Your task to perform on an android device: change keyboard looks Image 0: 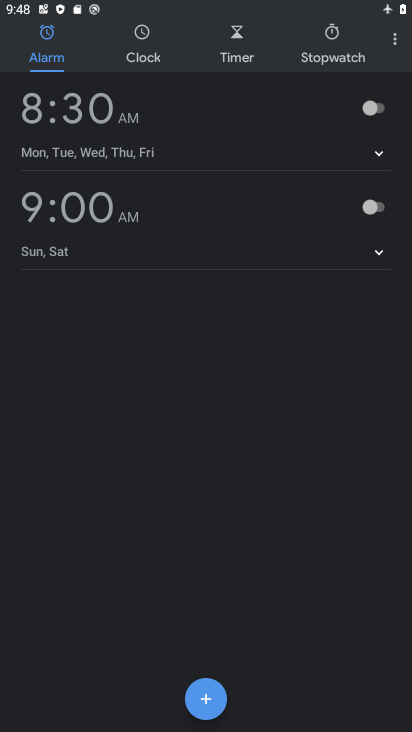
Step 0: press home button
Your task to perform on an android device: change keyboard looks Image 1: 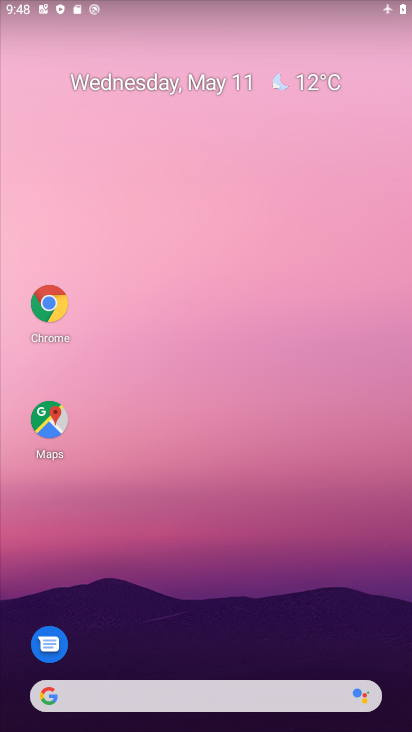
Step 1: drag from (144, 642) to (110, 190)
Your task to perform on an android device: change keyboard looks Image 2: 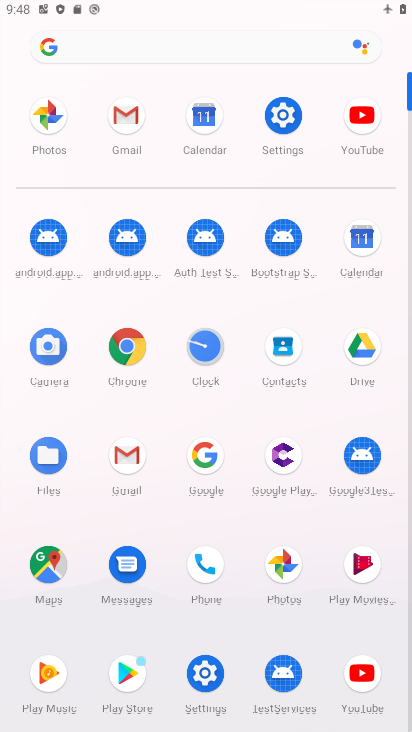
Step 2: click (213, 671)
Your task to perform on an android device: change keyboard looks Image 3: 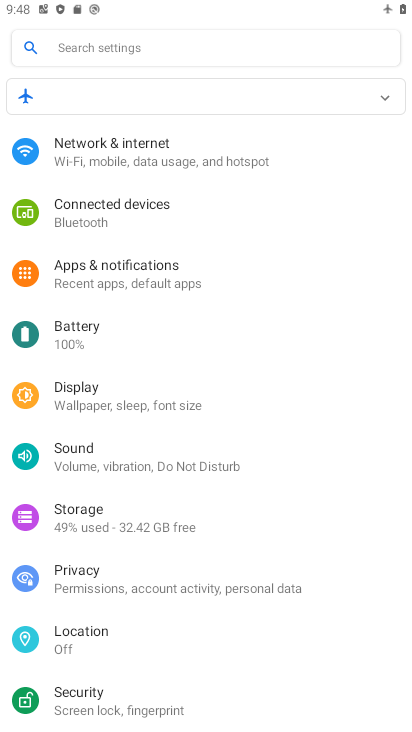
Step 3: drag from (213, 671) to (185, 315)
Your task to perform on an android device: change keyboard looks Image 4: 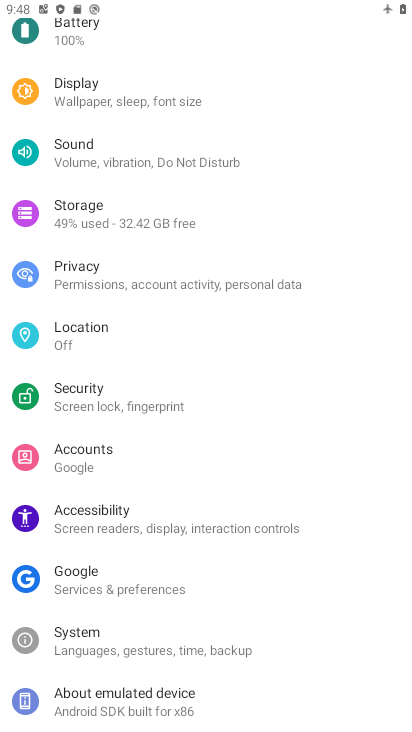
Step 4: click (141, 641)
Your task to perform on an android device: change keyboard looks Image 5: 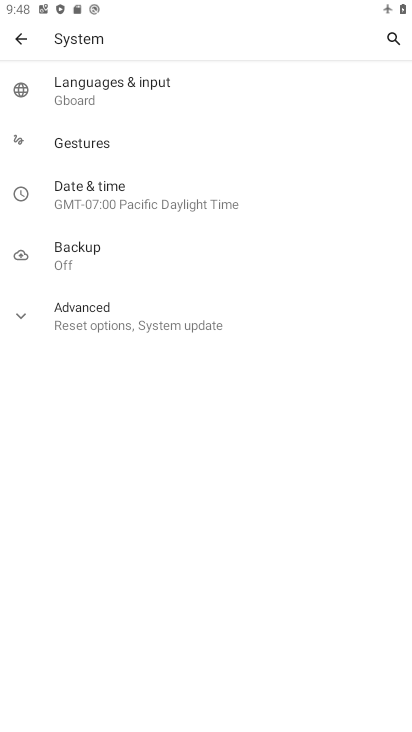
Step 5: click (127, 93)
Your task to perform on an android device: change keyboard looks Image 6: 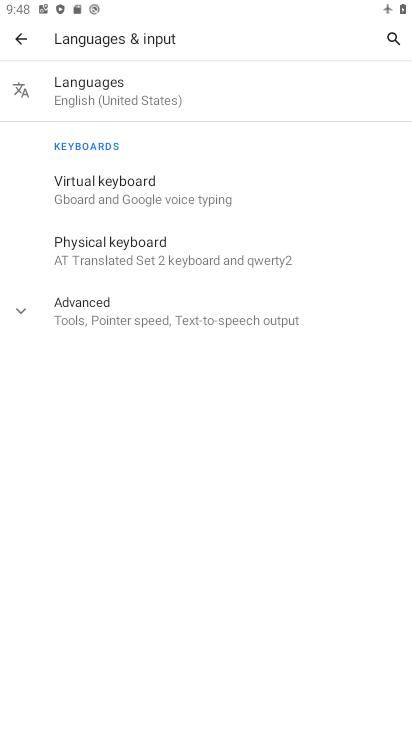
Step 6: click (152, 194)
Your task to perform on an android device: change keyboard looks Image 7: 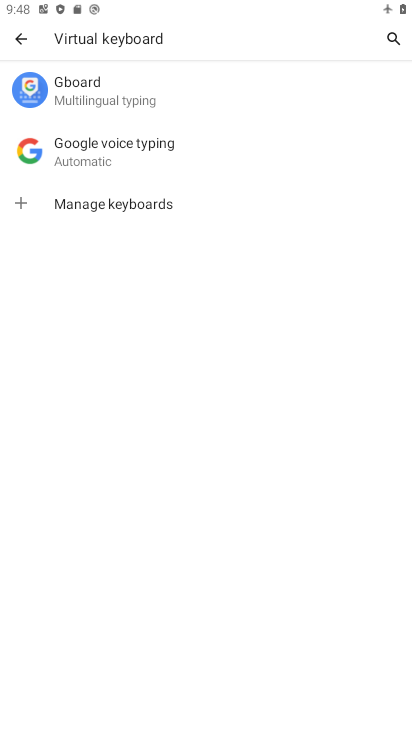
Step 7: click (155, 102)
Your task to perform on an android device: change keyboard looks Image 8: 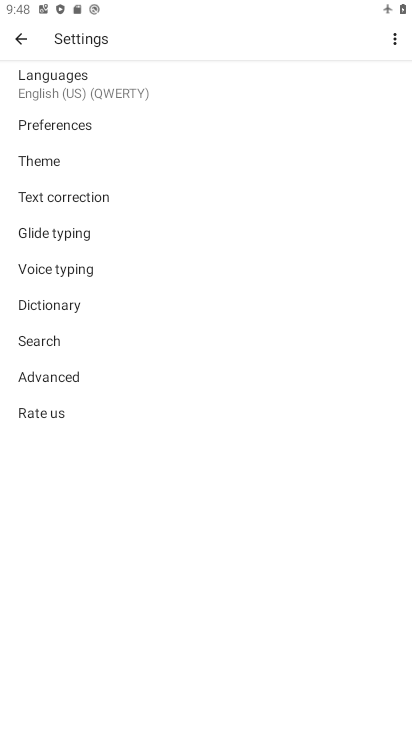
Step 8: click (40, 164)
Your task to perform on an android device: change keyboard looks Image 9: 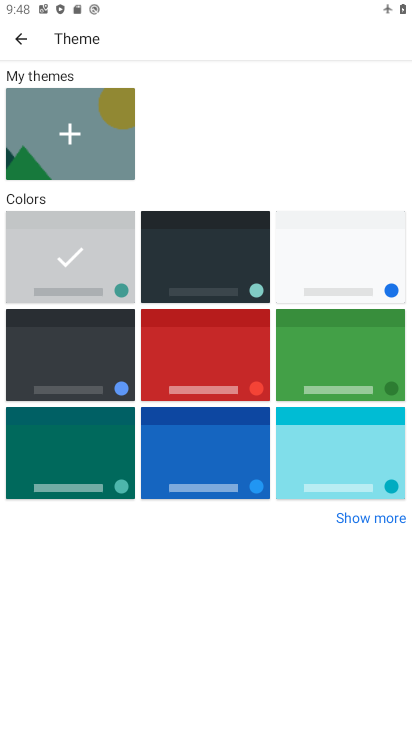
Step 9: click (226, 464)
Your task to perform on an android device: change keyboard looks Image 10: 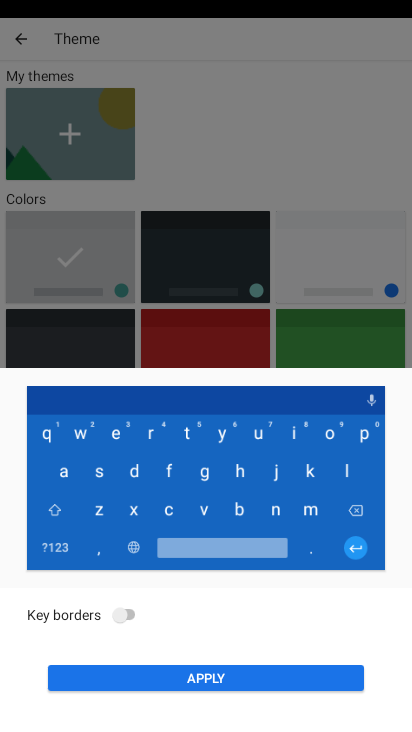
Step 10: click (123, 611)
Your task to perform on an android device: change keyboard looks Image 11: 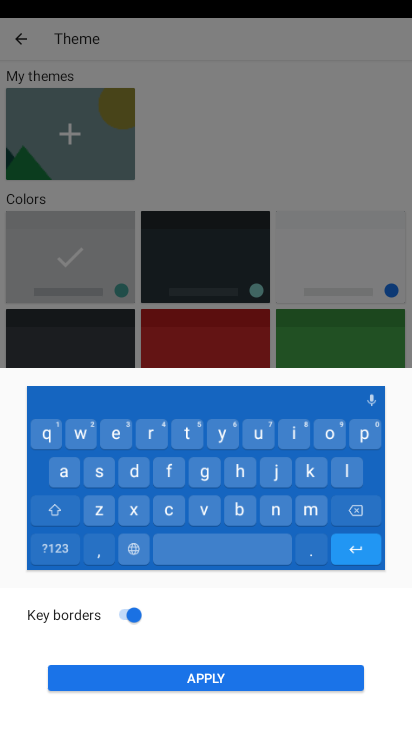
Step 11: click (142, 672)
Your task to perform on an android device: change keyboard looks Image 12: 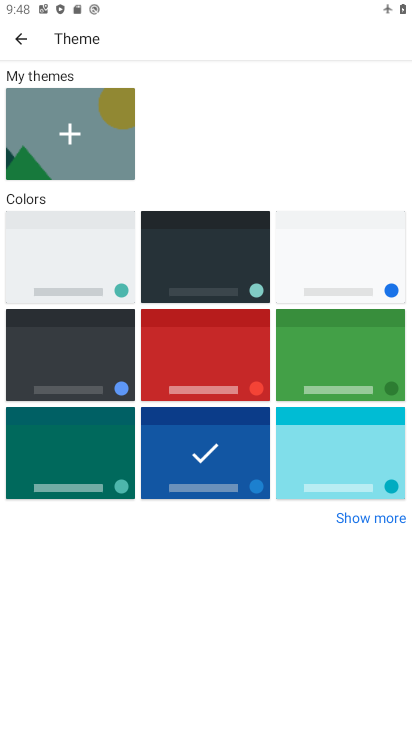
Step 12: task complete